Your task to perform on an android device: open wifi settings Image 0: 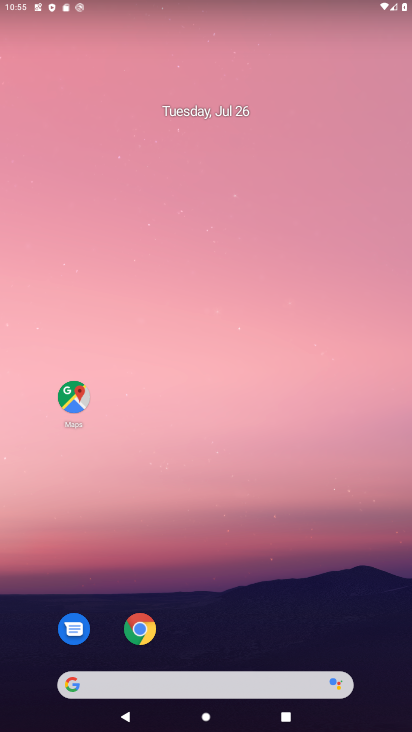
Step 0: drag from (243, 638) to (302, 62)
Your task to perform on an android device: open wifi settings Image 1: 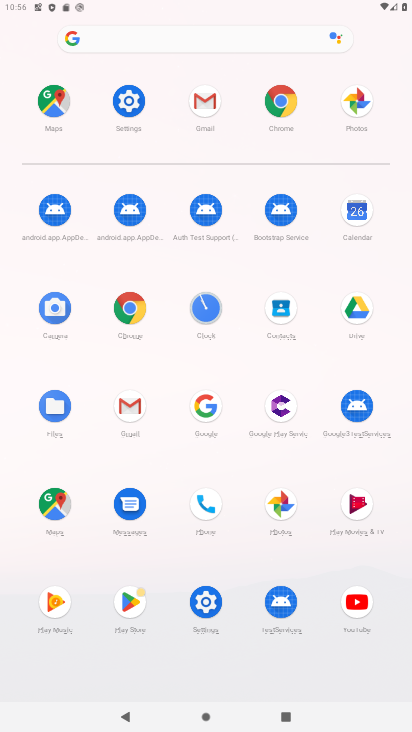
Step 1: click (140, 94)
Your task to perform on an android device: open wifi settings Image 2: 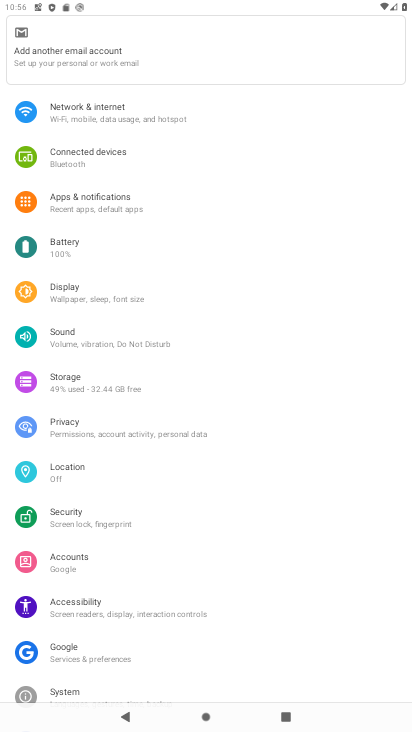
Step 2: click (117, 112)
Your task to perform on an android device: open wifi settings Image 3: 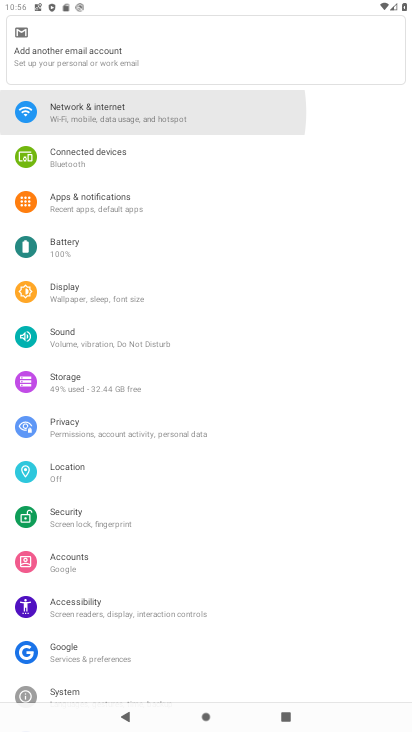
Step 3: click (117, 112)
Your task to perform on an android device: open wifi settings Image 4: 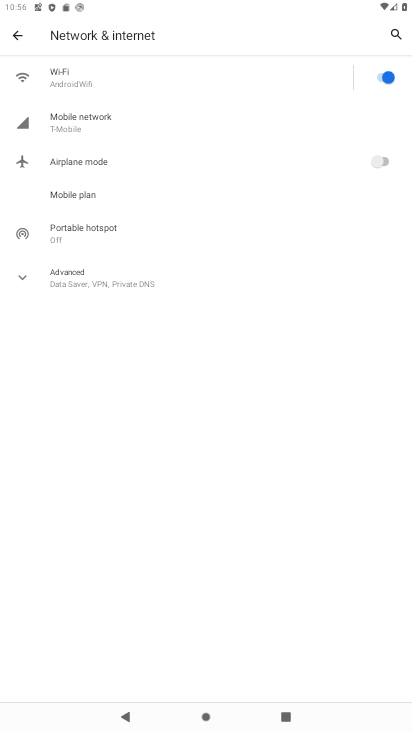
Step 4: click (133, 80)
Your task to perform on an android device: open wifi settings Image 5: 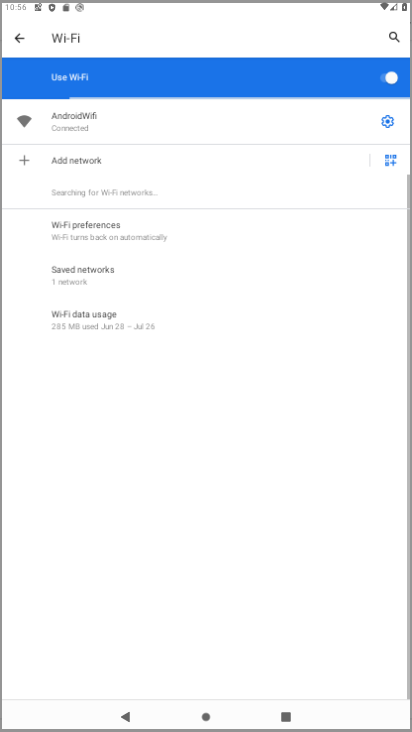
Step 5: task complete